Your task to perform on an android device: Add "razer huntsman" to the cart on amazon, then select checkout. Image 0: 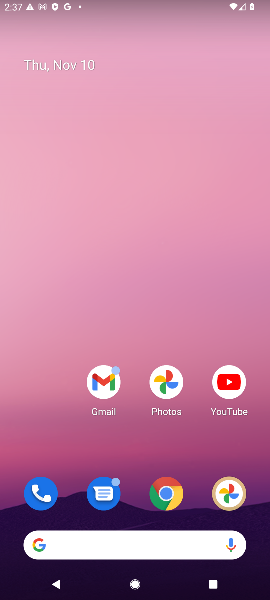
Step 0: drag from (121, 527) to (88, 96)
Your task to perform on an android device: Add "razer huntsman" to the cart on amazon, then select checkout. Image 1: 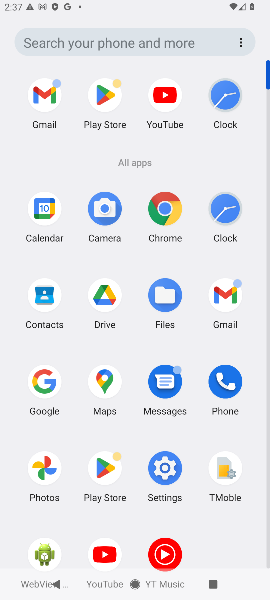
Step 1: click (49, 372)
Your task to perform on an android device: Add "razer huntsman" to the cart on amazon, then select checkout. Image 2: 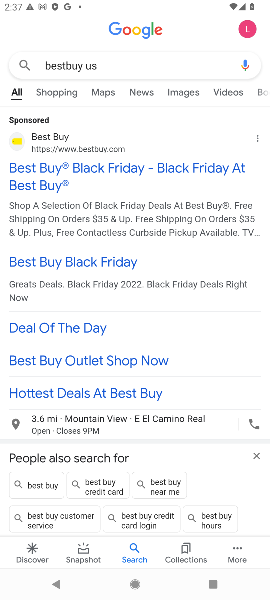
Step 2: click (11, 135)
Your task to perform on an android device: Add "razer huntsman" to the cart on amazon, then select checkout. Image 3: 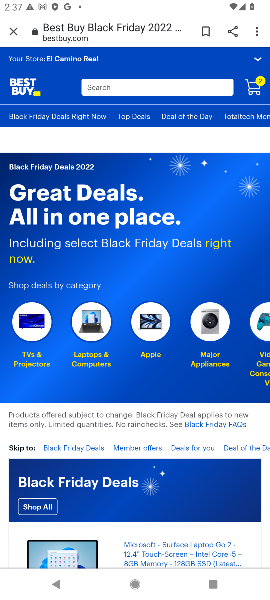
Step 3: press back button
Your task to perform on an android device: Add "razer huntsman" to the cart on amazon, then select checkout. Image 4: 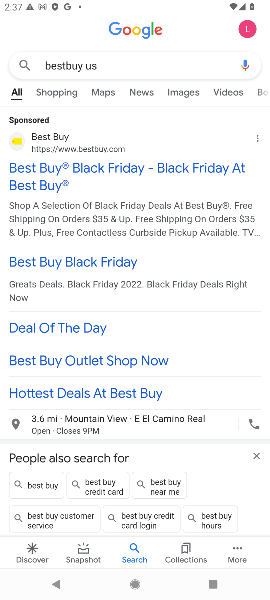
Step 4: click (121, 68)
Your task to perform on an android device: Add "razer huntsman" to the cart on amazon, then select checkout. Image 5: 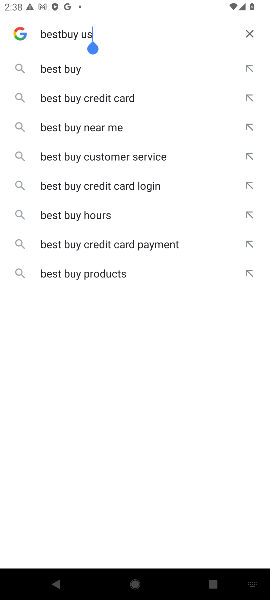
Step 5: click (239, 32)
Your task to perform on an android device: Add "razer huntsman" to the cart on amazon, then select checkout. Image 6: 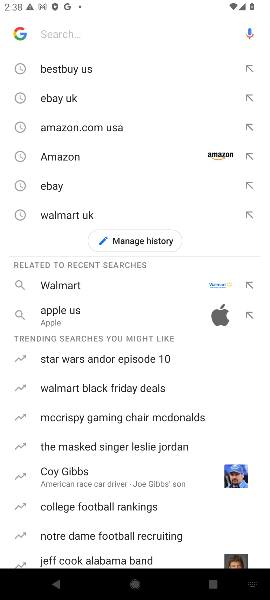
Step 6: click (55, 24)
Your task to perform on an android device: Add "razer huntsman" to the cart on amazon, then select checkout. Image 7: 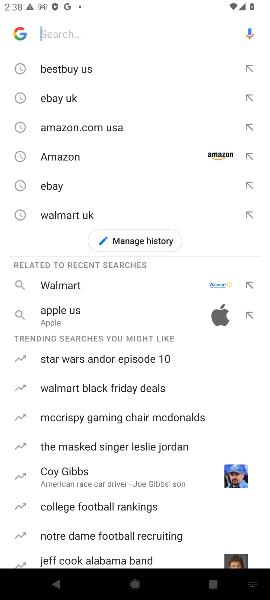
Step 7: type "amazon "
Your task to perform on an android device: Add "razer huntsman" to the cart on amazon, then select checkout. Image 8: 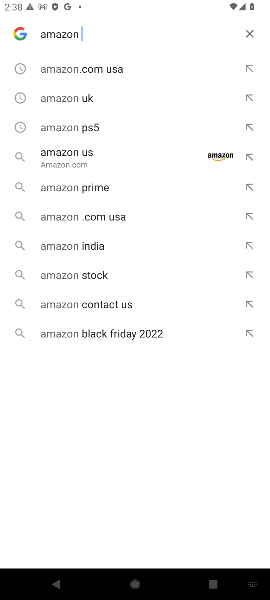
Step 8: click (51, 69)
Your task to perform on an android device: Add "razer huntsman" to the cart on amazon, then select checkout. Image 9: 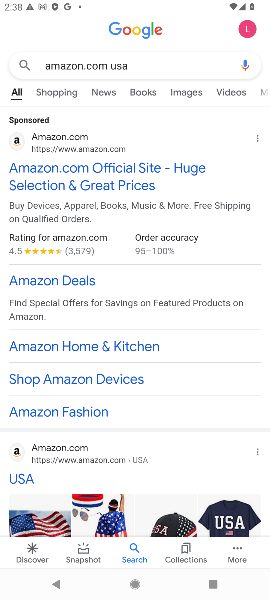
Step 9: click (18, 137)
Your task to perform on an android device: Add "razer huntsman" to the cart on amazon, then select checkout. Image 10: 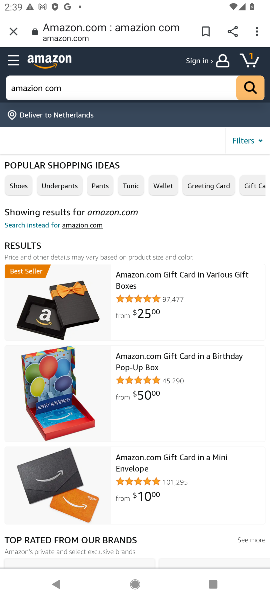
Step 10: click (93, 80)
Your task to perform on an android device: Add "razer huntsman" to the cart on amazon, then select checkout. Image 11: 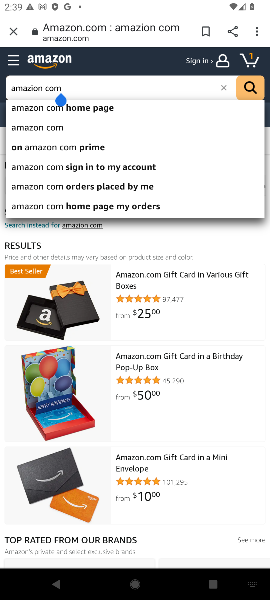
Step 11: type "razer huntsman "
Your task to perform on an android device: Add "razer huntsman" to the cart on amazon, then select checkout. Image 12: 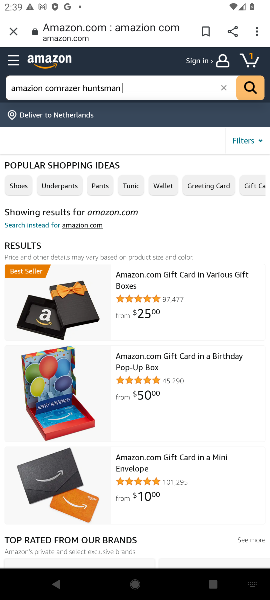
Step 12: click (226, 85)
Your task to perform on an android device: Add "razer huntsman" to the cart on amazon, then select checkout. Image 13: 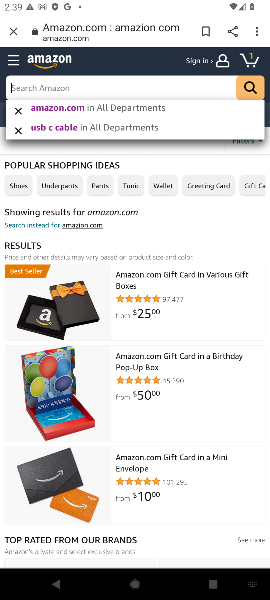
Step 13: click (113, 89)
Your task to perform on an android device: Add "razer huntsman" to the cart on amazon, then select checkout. Image 14: 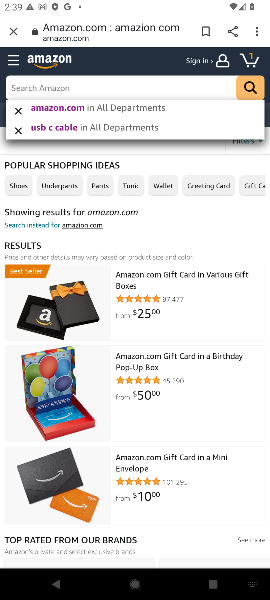
Step 14: type "razer huntsman "
Your task to perform on an android device: Add "razer huntsman" to the cart on amazon, then select checkout. Image 15: 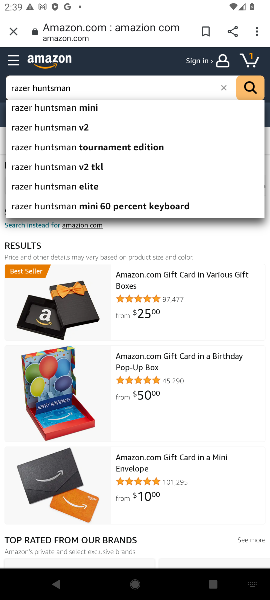
Step 15: click (69, 101)
Your task to perform on an android device: Add "razer huntsman" to the cart on amazon, then select checkout. Image 16: 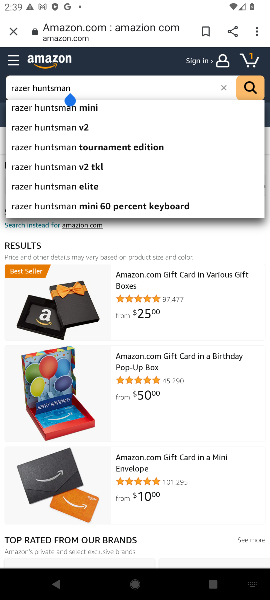
Step 16: click (32, 109)
Your task to perform on an android device: Add "razer huntsman" to the cart on amazon, then select checkout. Image 17: 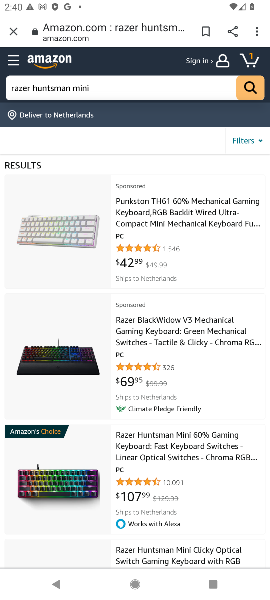
Step 17: click (180, 440)
Your task to perform on an android device: Add "razer huntsman" to the cart on amazon, then select checkout. Image 18: 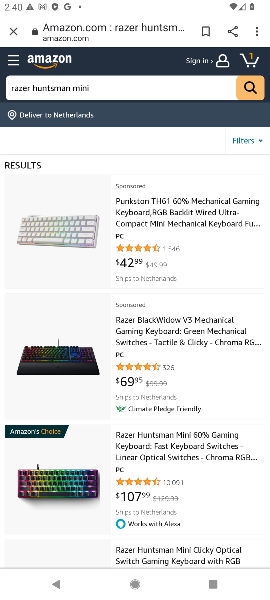
Step 18: click (171, 444)
Your task to perform on an android device: Add "razer huntsman" to the cart on amazon, then select checkout. Image 19: 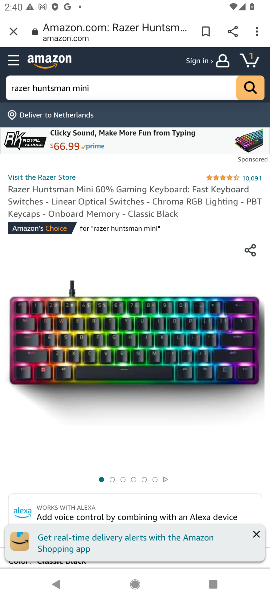
Step 19: click (257, 535)
Your task to perform on an android device: Add "razer huntsman" to the cart on amazon, then select checkout. Image 20: 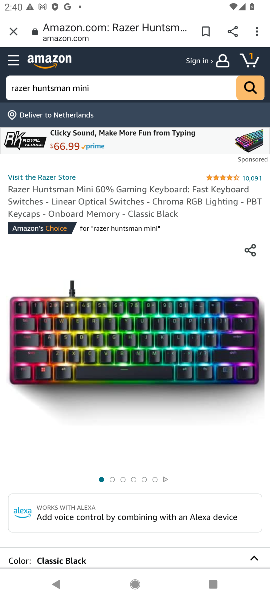
Step 20: drag from (167, 547) to (167, 213)
Your task to perform on an android device: Add "razer huntsman" to the cart on amazon, then select checkout. Image 21: 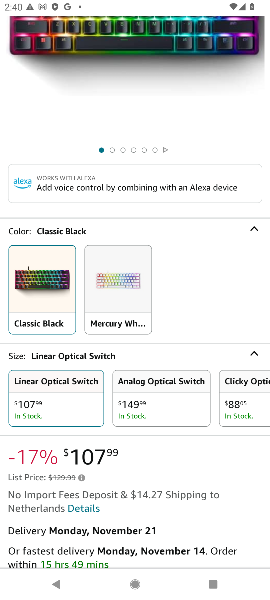
Step 21: drag from (99, 505) to (136, 222)
Your task to perform on an android device: Add "razer huntsman" to the cart on amazon, then select checkout. Image 22: 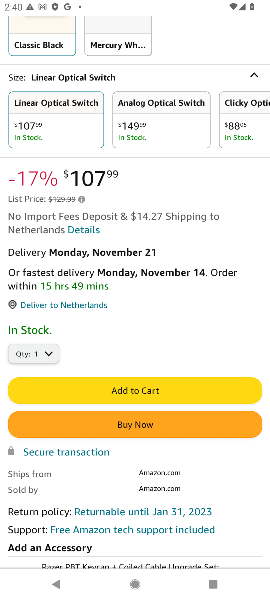
Step 22: click (151, 382)
Your task to perform on an android device: Add "razer huntsman" to the cart on amazon, then select checkout. Image 23: 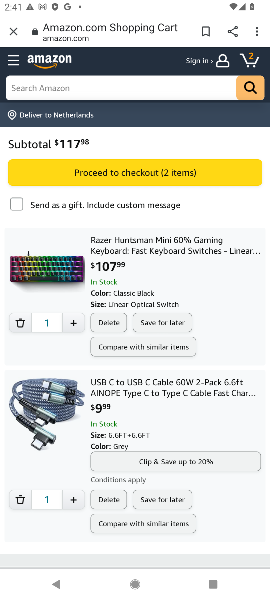
Step 23: task complete